Your task to perform on an android device: all mails in gmail Image 0: 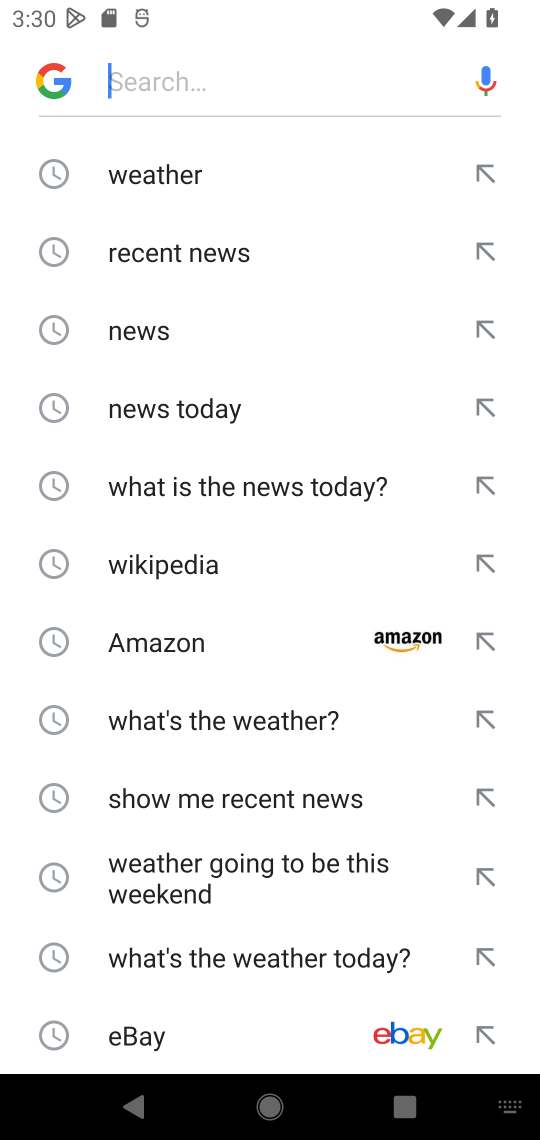
Step 0: press home button
Your task to perform on an android device: all mails in gmail Image 1: 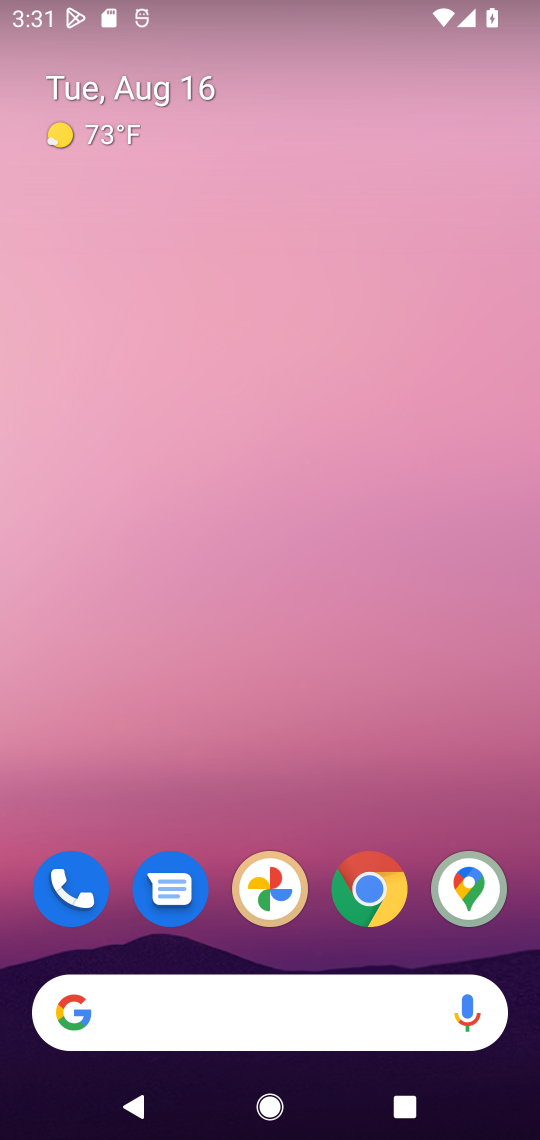
Step 1: drag from (247, 741) to (235, 298)
Your task to perform on an android device: all mails in gmail Image 2: 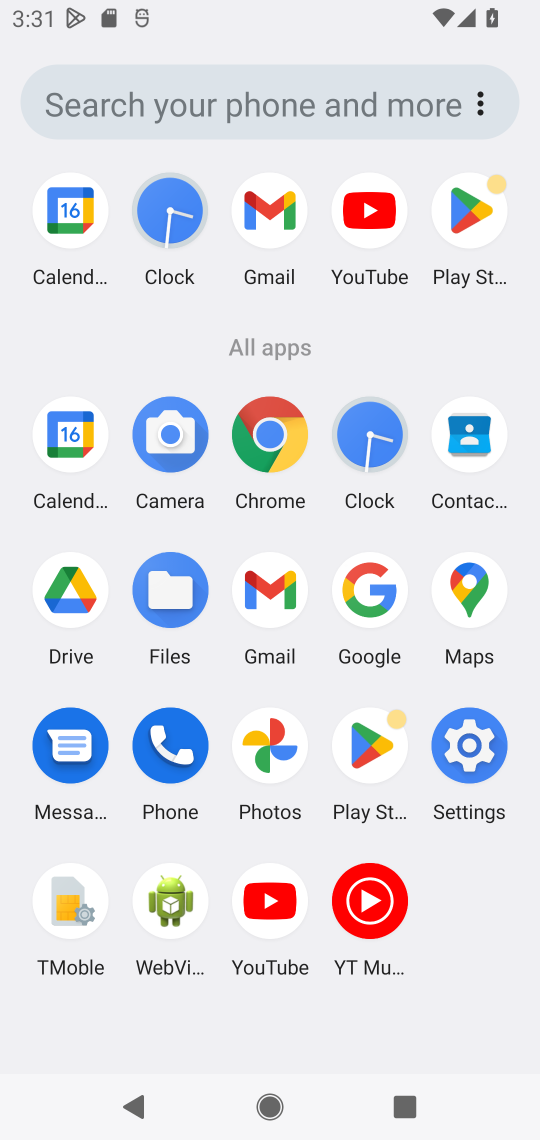
Step 2: click (284, 232)
Your task to perform on an android device: all mails in gmail Image 3: 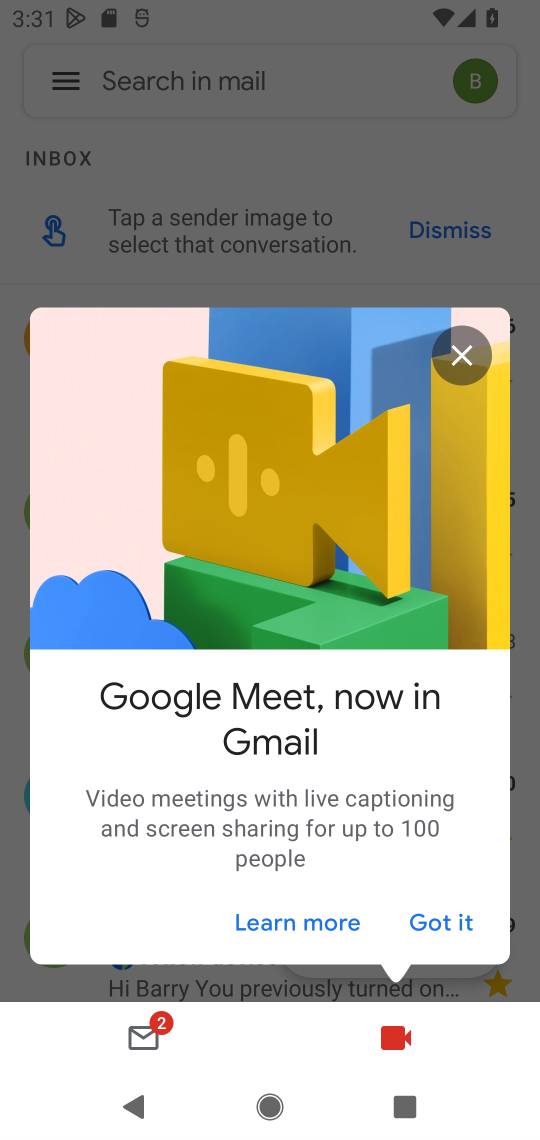
Step 3: click (464, 363)
Your task to perform on an android device: all mails in gmail Image 4: 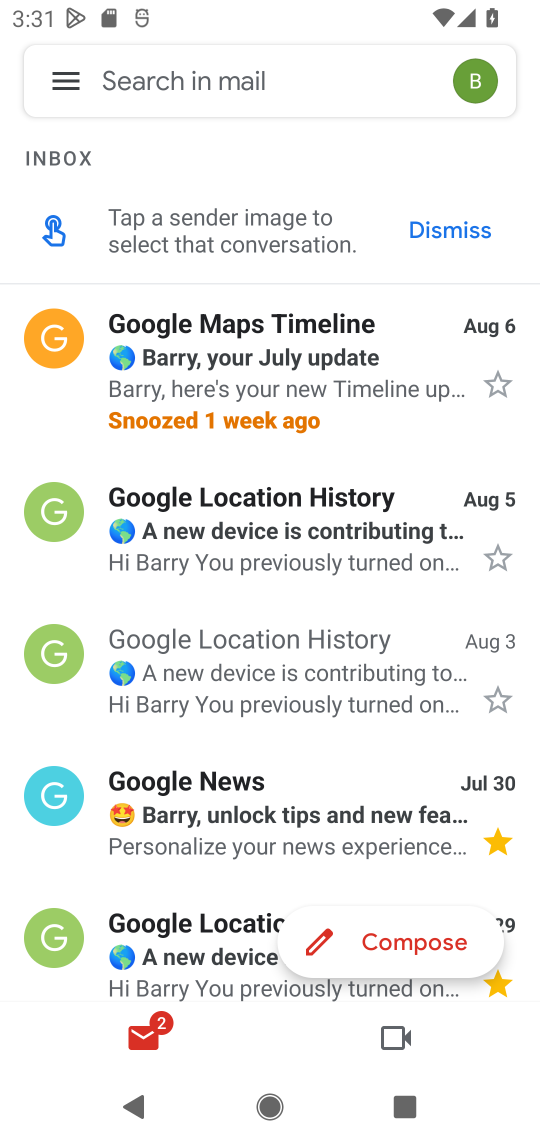
Step 4: task complete